Your task to perform on an android device: Go to internet settings Image 0: 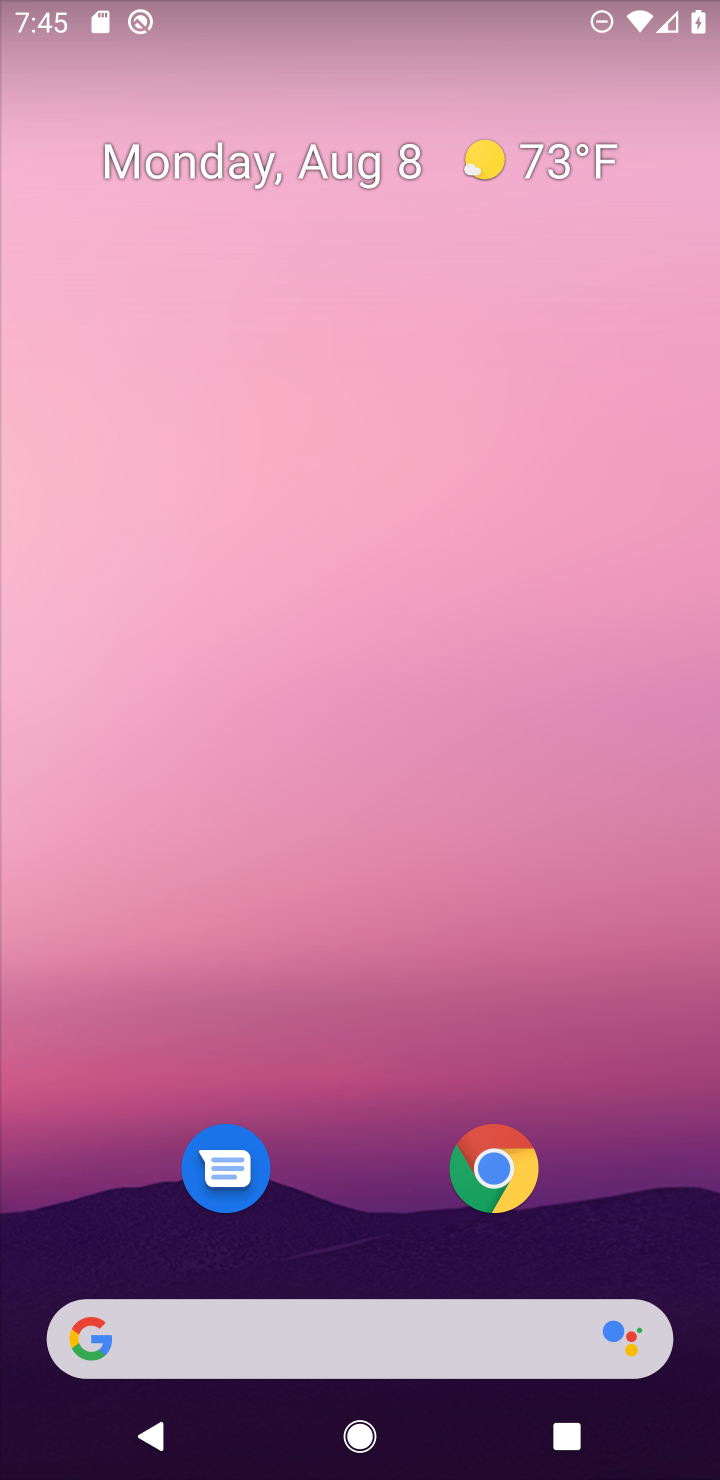
Step 0: drag from (453, 882) to (571, 123)
Your task to perform on an android device: Go to internet settings Image 1: 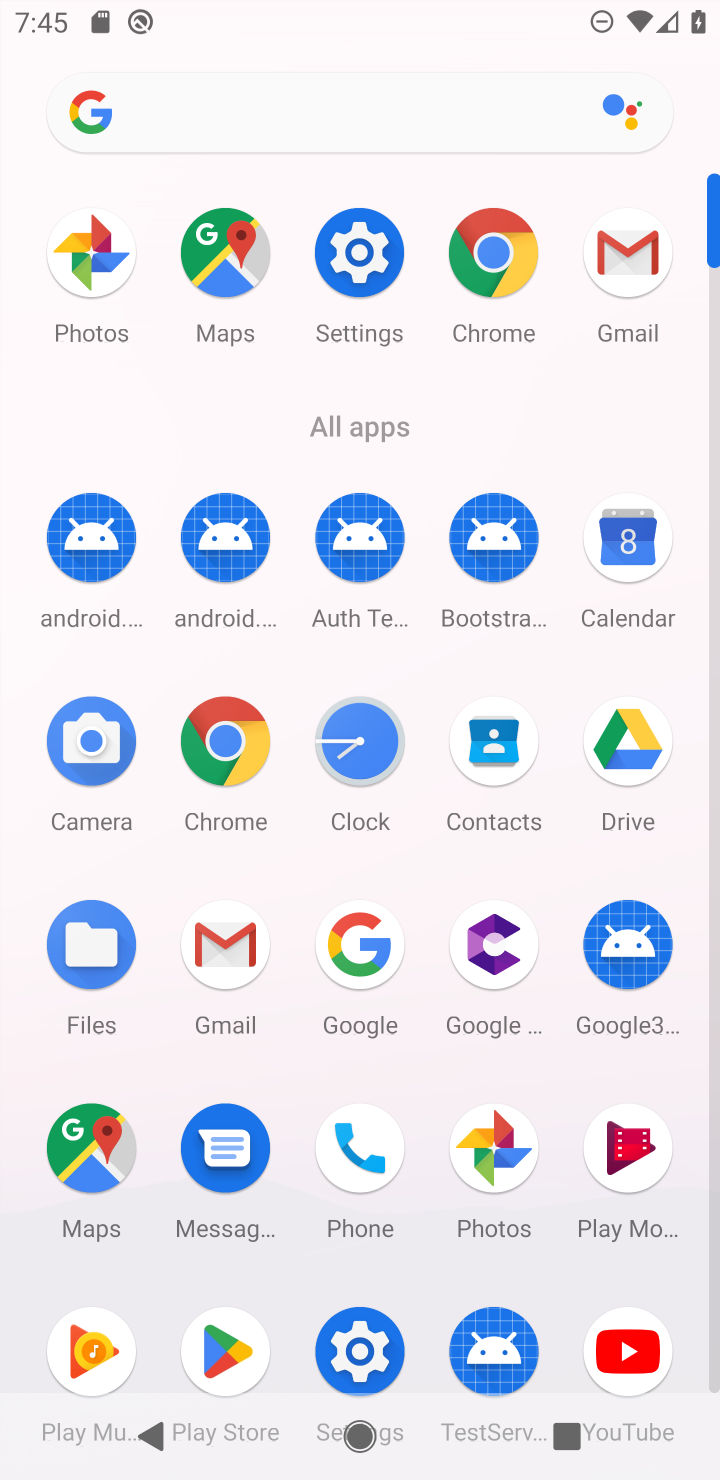
Step 1: click (368, 256)
Your task to perform on an android device: Go to internet settings Image 2: 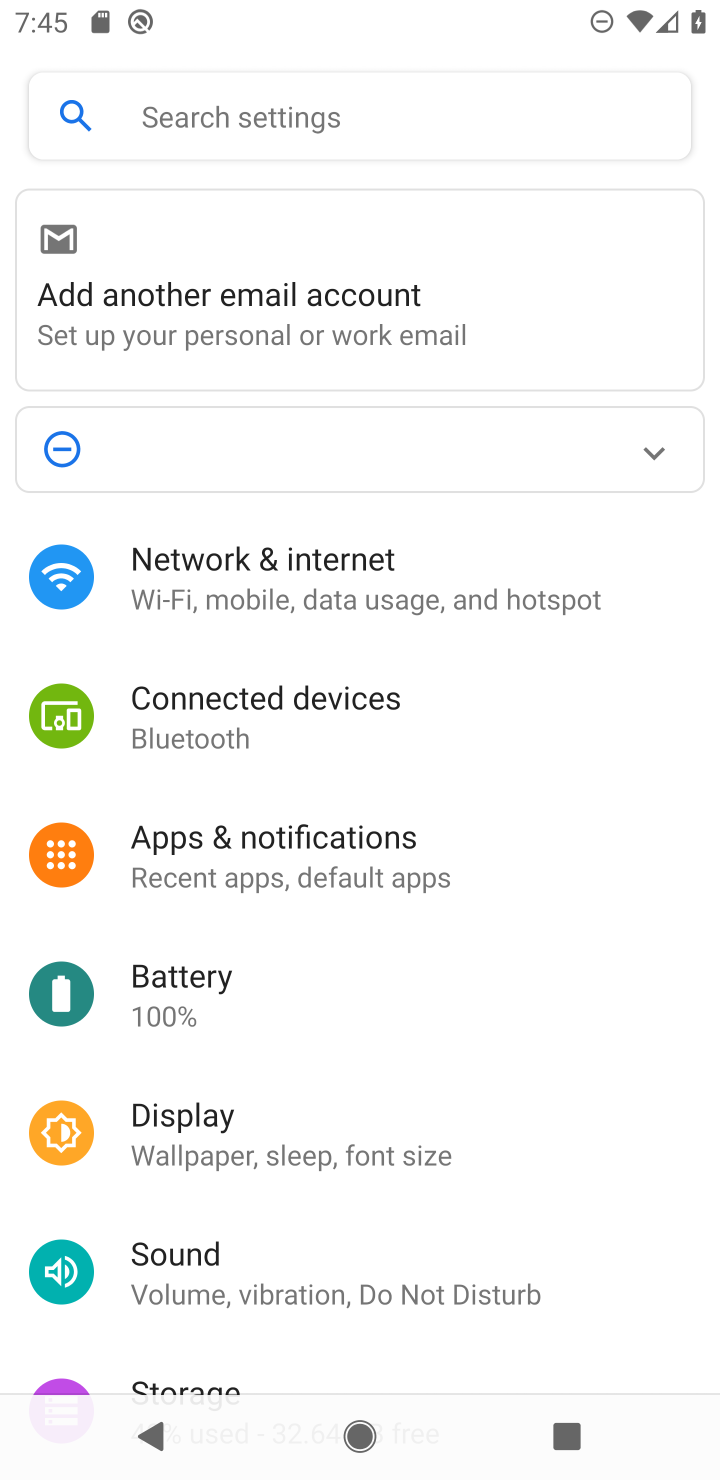
Step 2: click (294, 578)
Your task to perform on an android device: Go to internet settings Image 3: 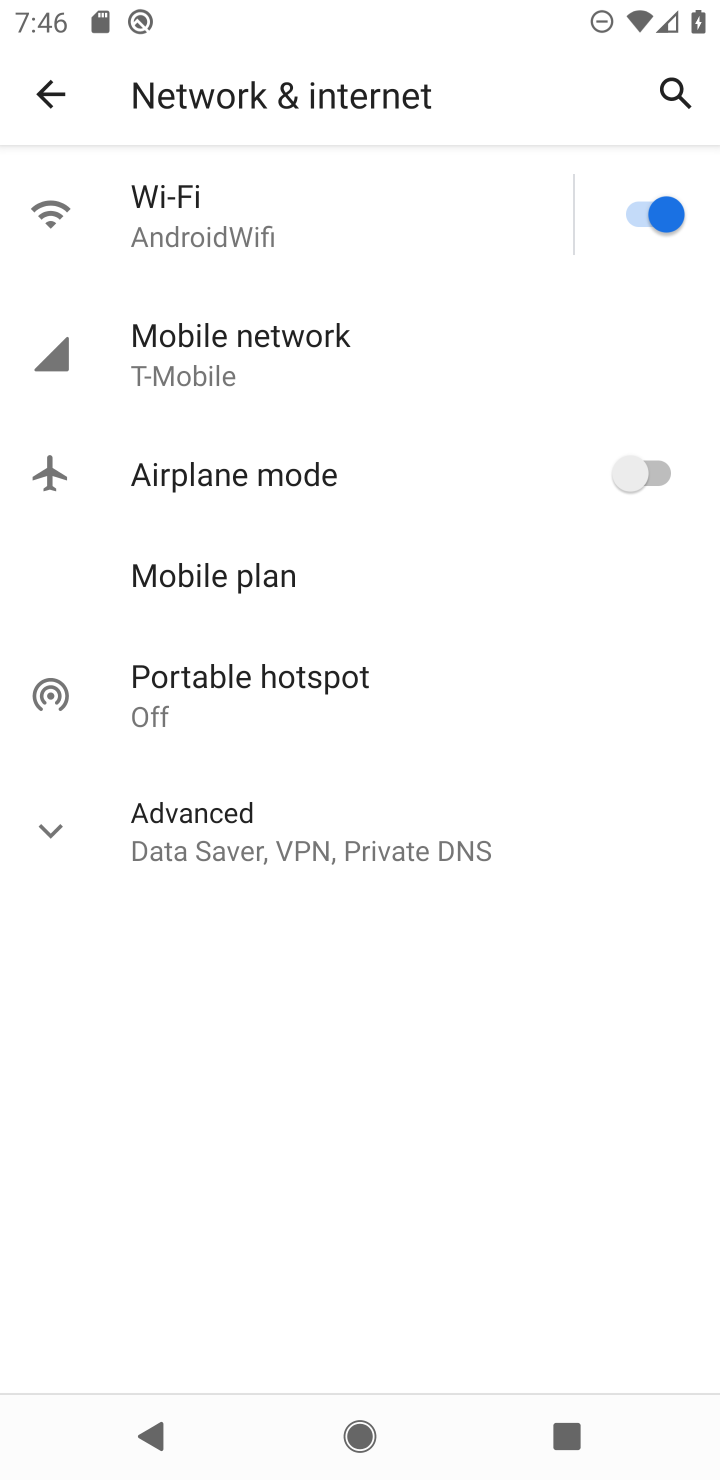
Step 3: task complete